Your task to perform on an android device: add a label to a message in the gmail app Image 0: 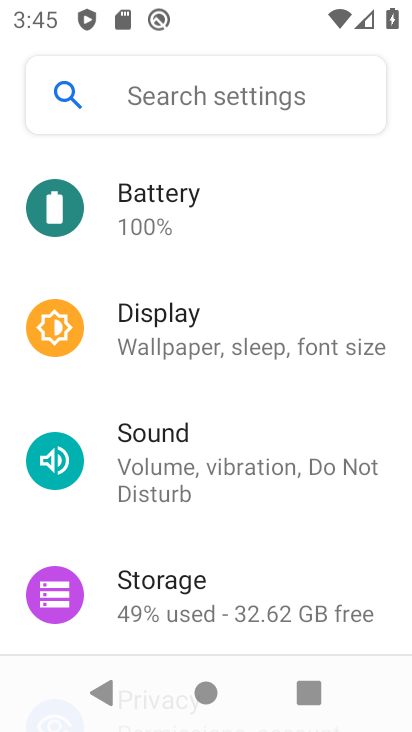
Step 0: press home button
Your task to perform on an android device: add a label to a message in the gmail app Image 1: 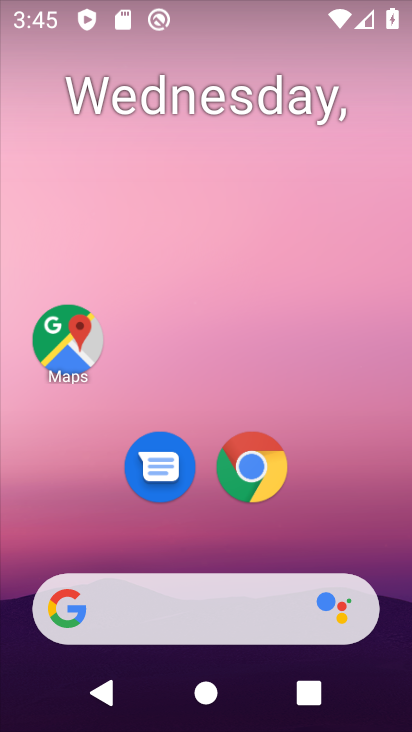
Step 1: drag from (342, 546) to (228, 18)
Your task to perform on an android device: add a label to a message in the gmail app Image 2: 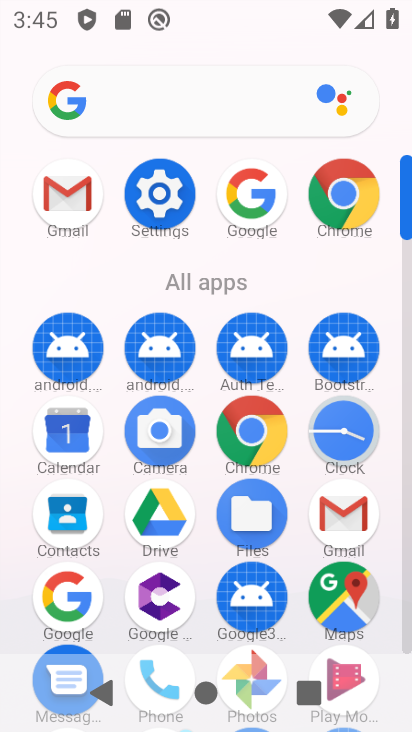
Step 2: click (70, 188)
Your task to perform on an android device: add a label to a message in the gmail app Image 3: 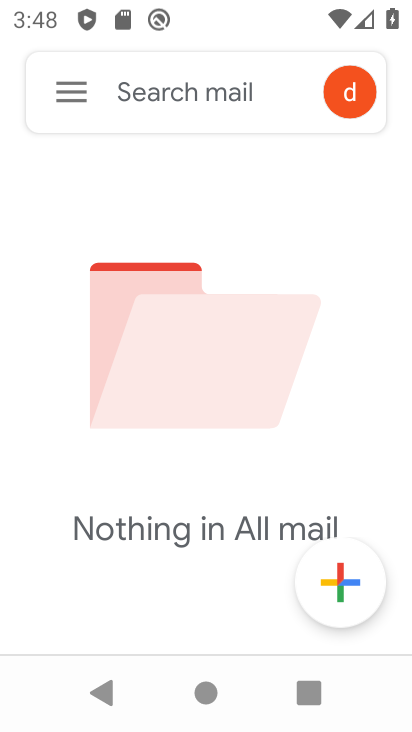
Step 3: task complete